Your task to perform on an android device: Open the Play Movies app and select the watchlist tab. Image 0: 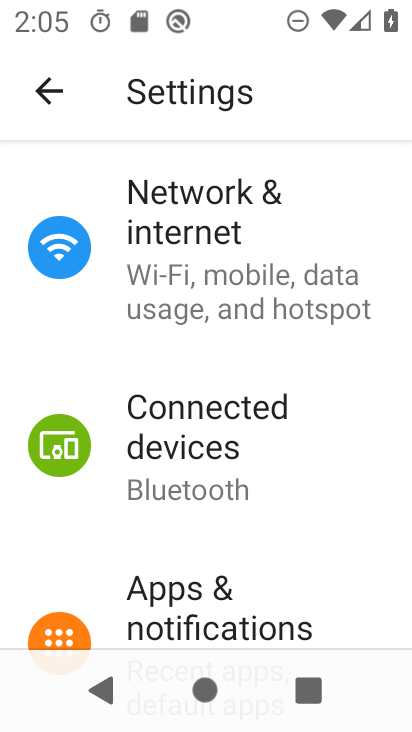
Step 0: press home button
Your task to perform on an android device: Open the Play Movies app and select the watchlist tab. Image 1: 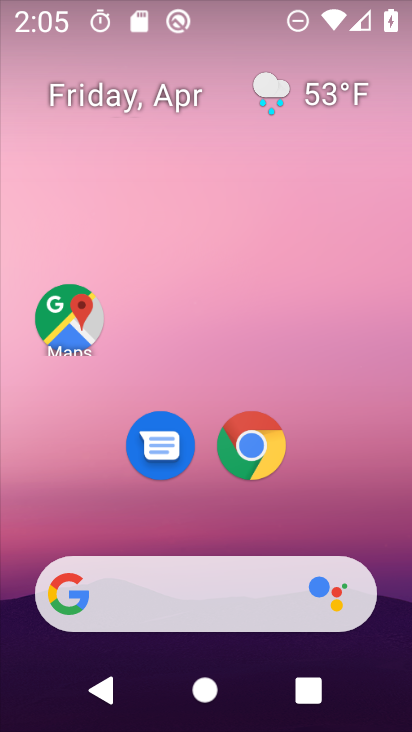
Step 1: drag from (364, 493) to (358, 128)
Your task to perform on an android device: Open the Play Movies app and select the watchlist tab. Image 2: 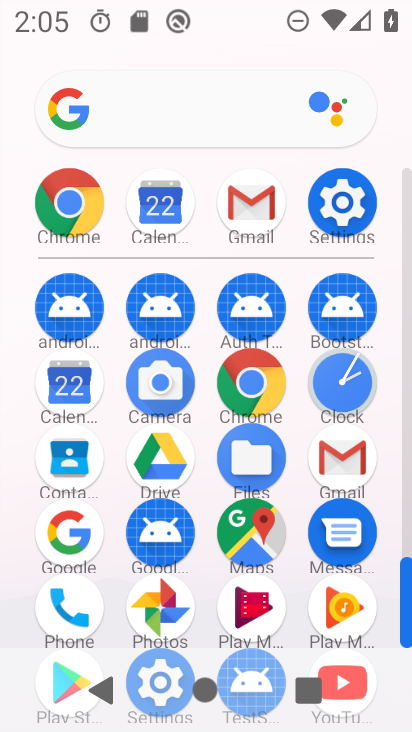
Step 2: drag from (385, 527) to (383, 299)
Your task to perform on an android device: Open the Play Movies app and select the watchlist tab. Image 3: 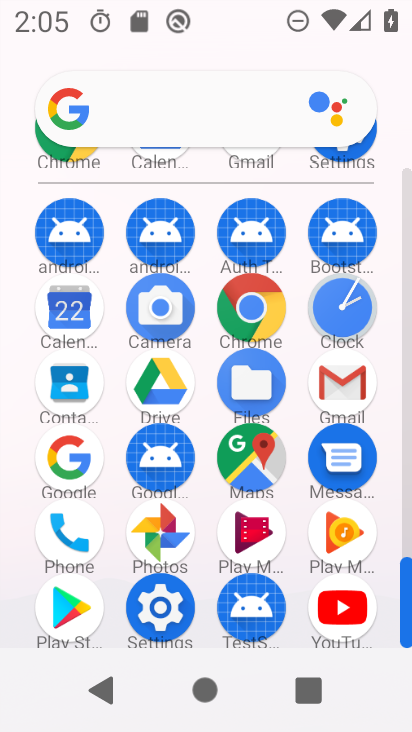
Step 3: click (262, 550)
Your task to perform on an android device: Open the Play Movies app and select the watchlist tab. Image 4: 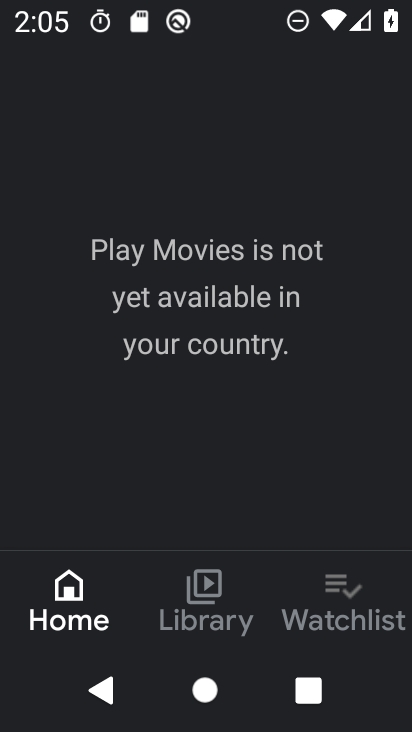
Step 4: click (361, 621)
Your task to perform on an android device: Open the Play Movies app and select the watchlist tab. Image 5: 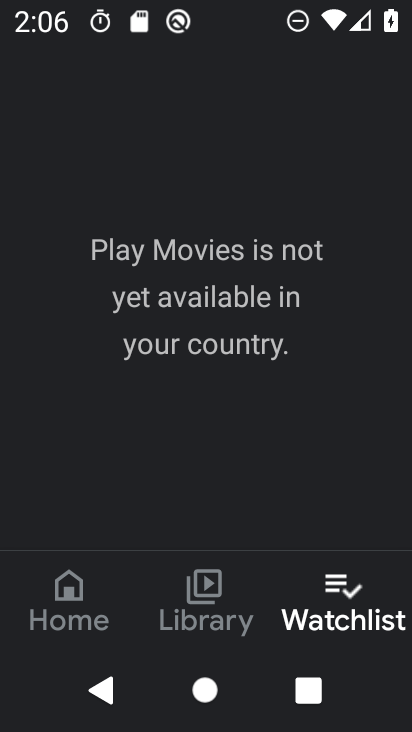
Step 5: task complete